Your task to perform on an android device: check google app version Image 0: 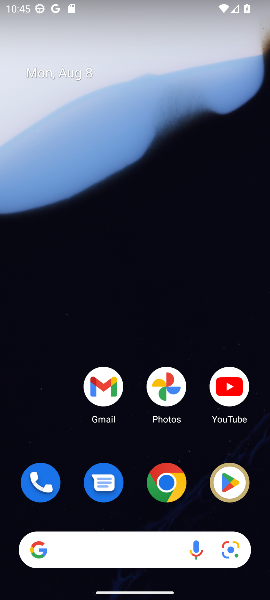
Step 0: drag from (128, 451) to (129, 53)
Your task to perform on an android device: check google app version Image 1: 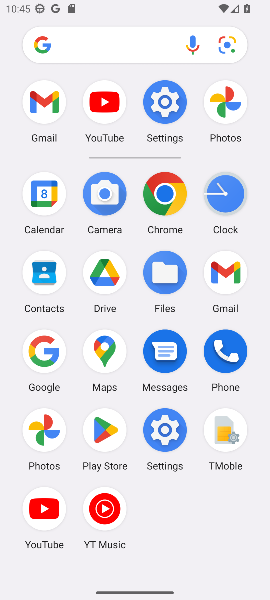
Step 1: click (47, 340)
Your task to perform on an android device: check google app version Image 2: 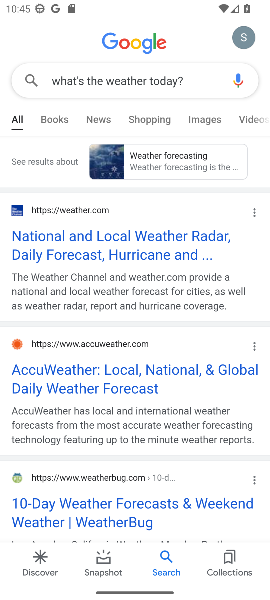
Step 2: click (244, 35)
Your task to perform on an android device: check google app version Image 3: 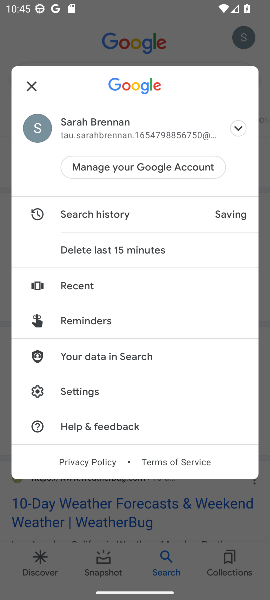
Step 3: click (79, 389)
Your task to perform on an android device: check google app version Image 4: 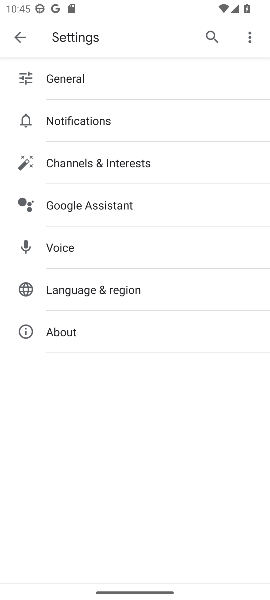
Step 4: click (72, 338)
Your task to perform on an android device: check google app version Image 5: 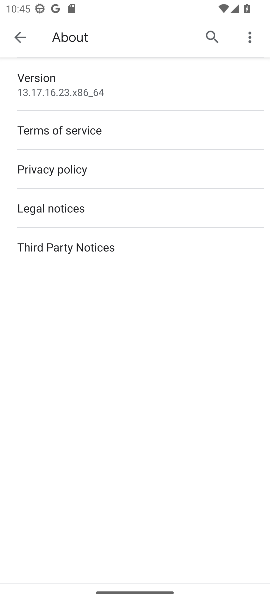
Step 5: click (75, 87)
Your task to perform on an android device: check google app version Image 6: 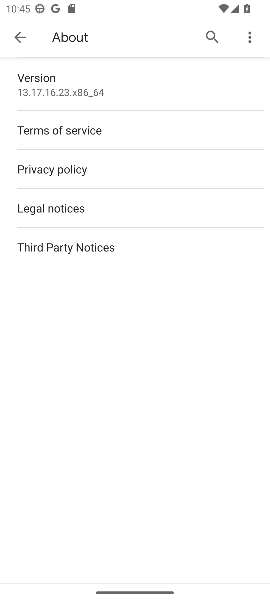
Step 6: task complete